Your task to perform on an android device: turn notification dots on Image 0: 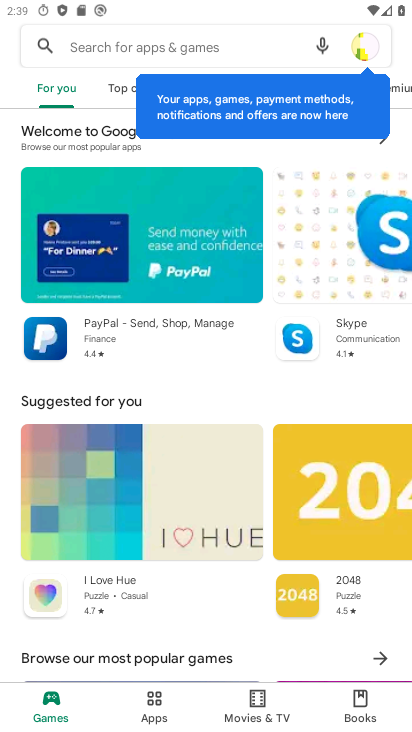
Step 0: press home button
Your task to perform on an android device: turn notification dots on Image 1: 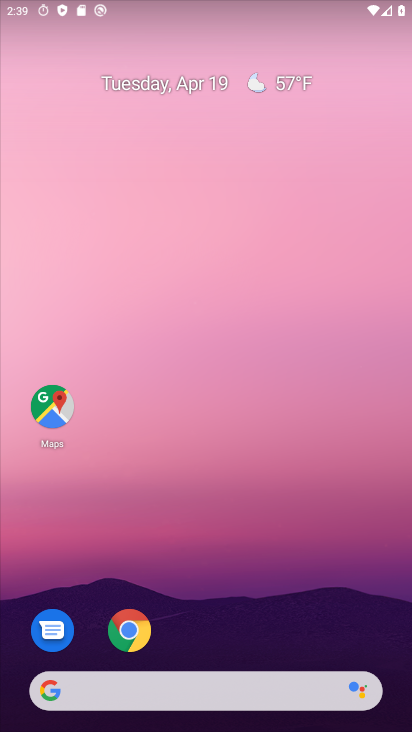
Step 1: drag from (220, 485) to (225, 5)
Your task to perform on an android device: turn notification dots on Image 2: 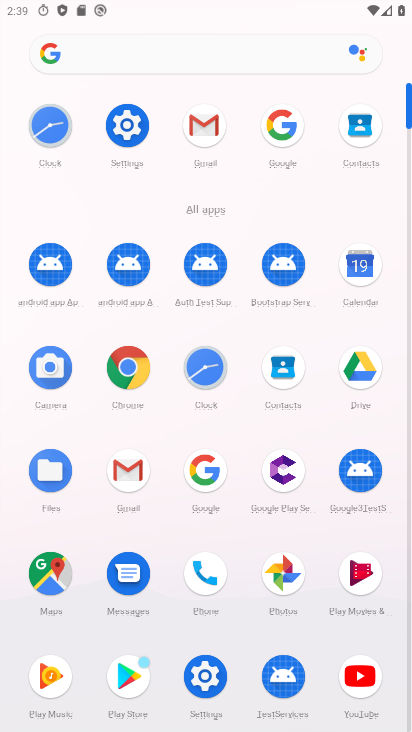
Step 2: click (129, 126)
Your task to perform on an android device: turn notification dots on Image 3: 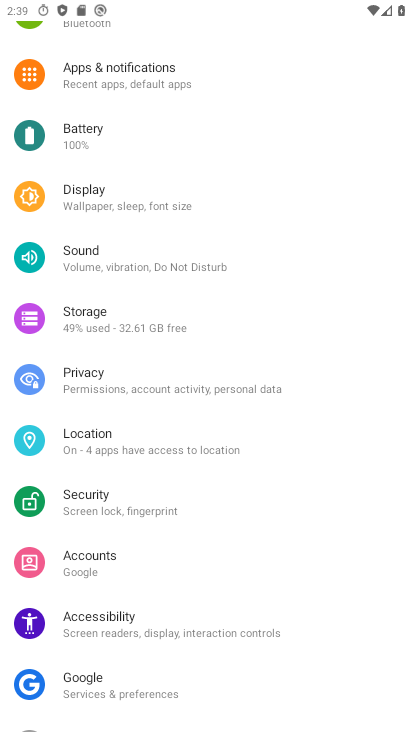
Step 3: click (141, 71)
Your task to perform on an android device: turn notification dots on Image 4: 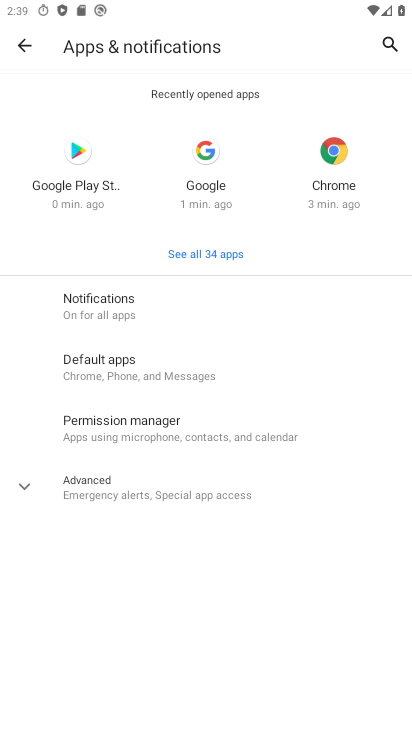
Step 4: click (105, 307)
Your task to perform on an android device: turn notification dots on Image 5: 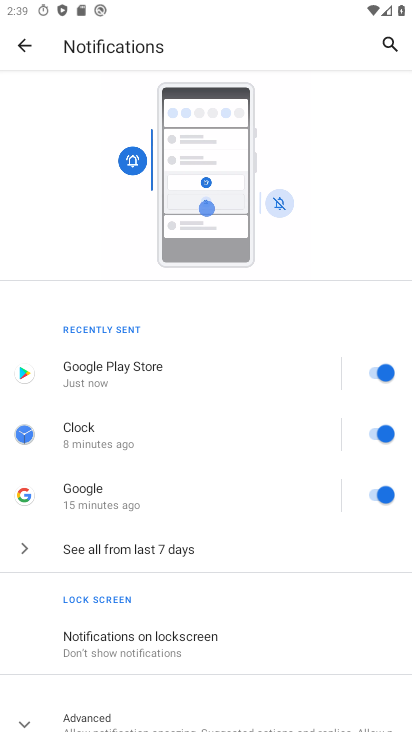
Step 5: drag from (182, 643) to (206, 303)
Your task to perform on an android device: turn notification dots on Image 6: 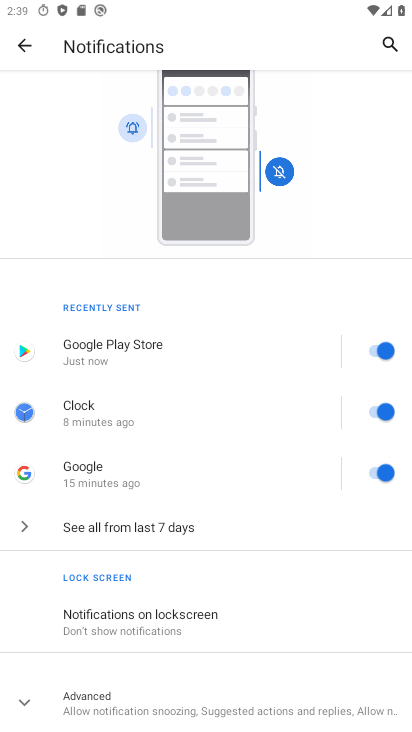
Step 6: click (169, 685)
Your task to perform on an android device: turn notification dots on Image 7: 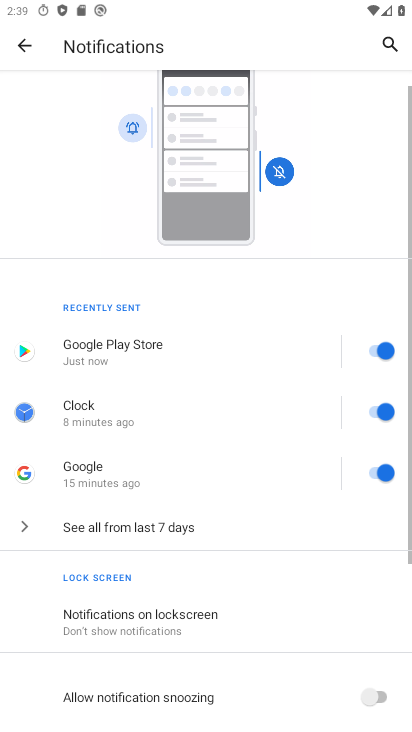
Step 7: task complete